Your task to perform on an android device: uninstall "Messenger Lite" Image 0: 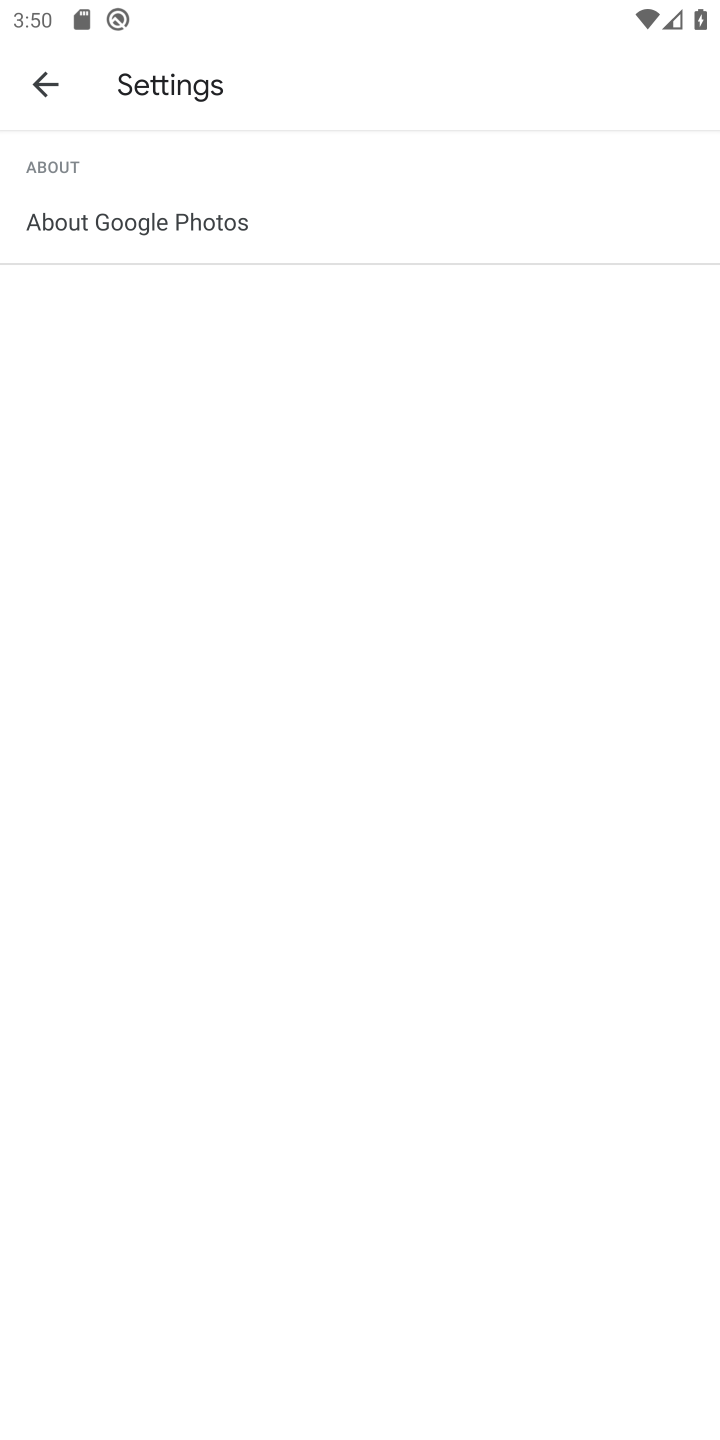
Step 0: press home button
Your task to perform on an android device: uninstall "Messenger Lite" Image 1: 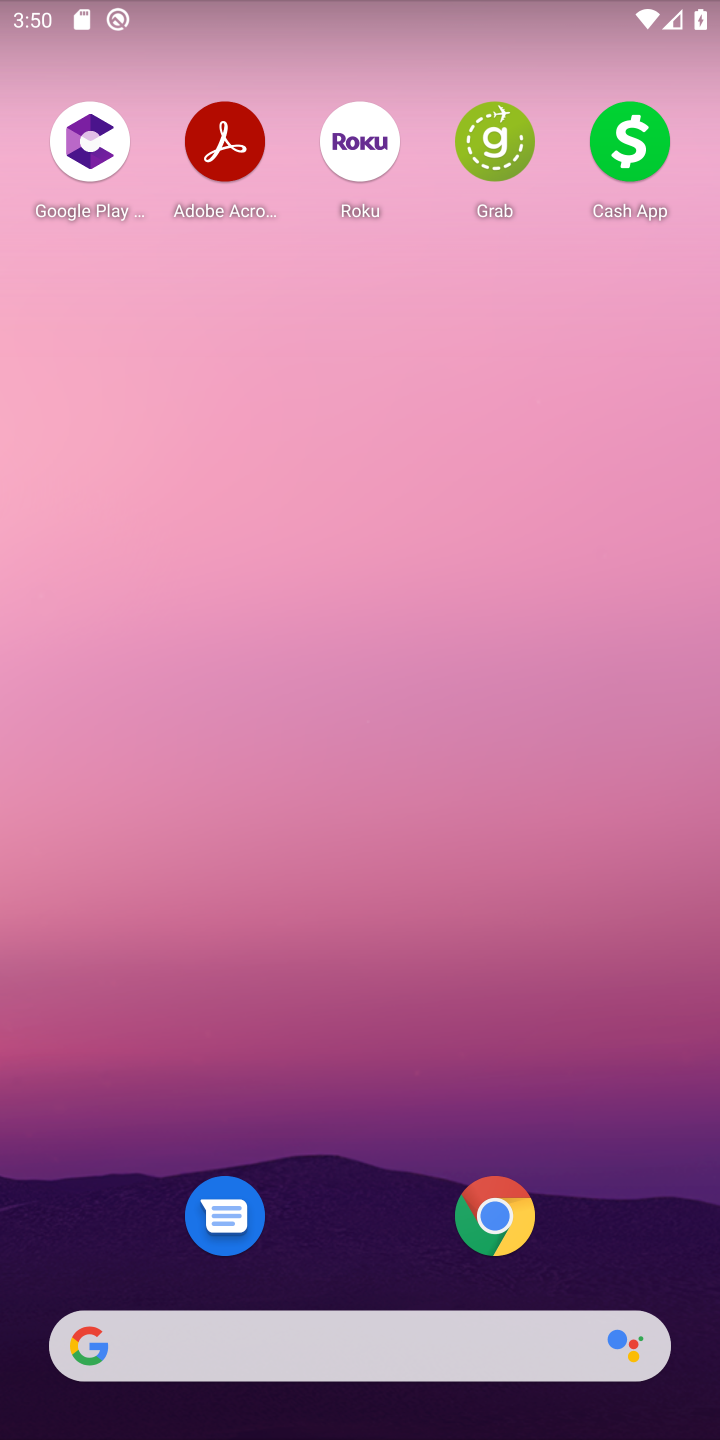
Step 1: drag from (329, 1084) to (425, 0)
Your task to perform on an android device: uninstall "Messenger Lite" Image 2: 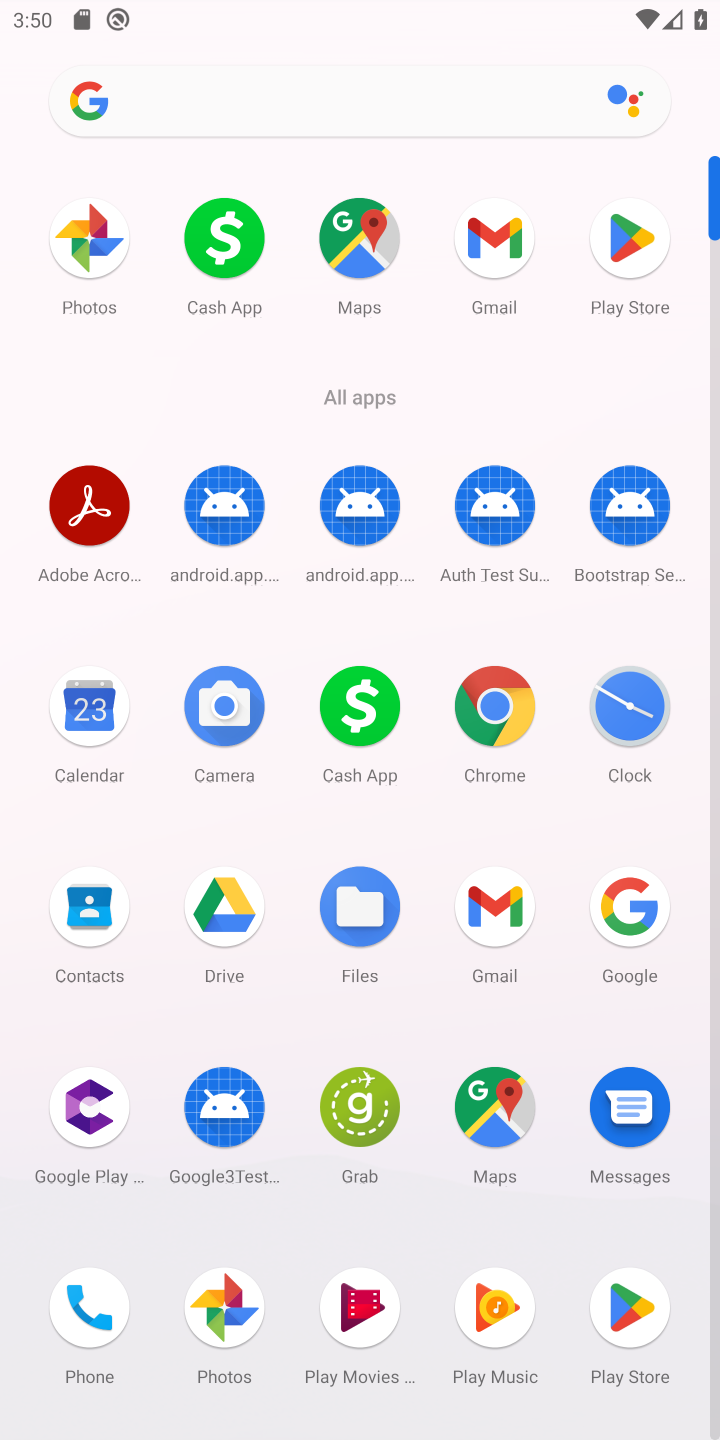
Step 2: click (633, 263)
Your task to perform on an android device: uninstall "Messenger Lite" Image 3: 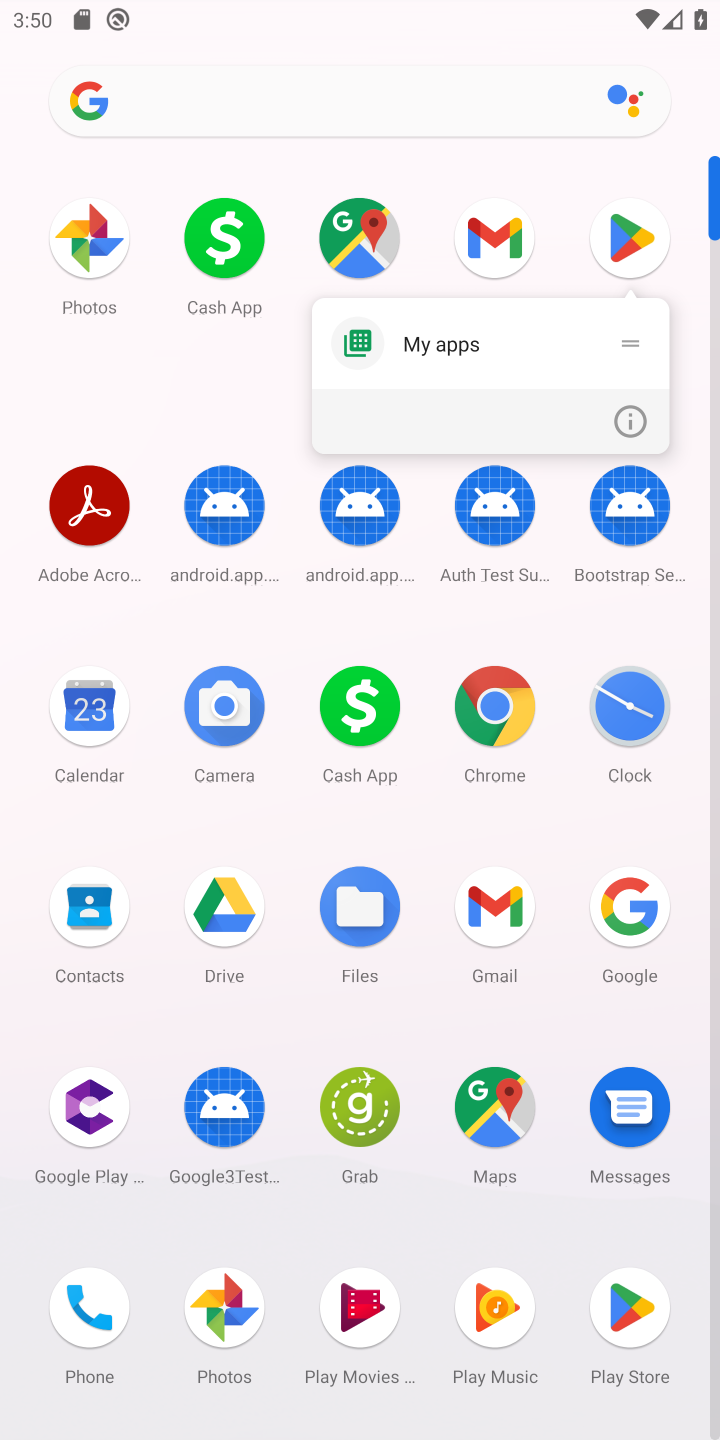
Step 3: click (643, 217)
Your task to perform on an android device: uninstall "Messenger Lite" Image 4: 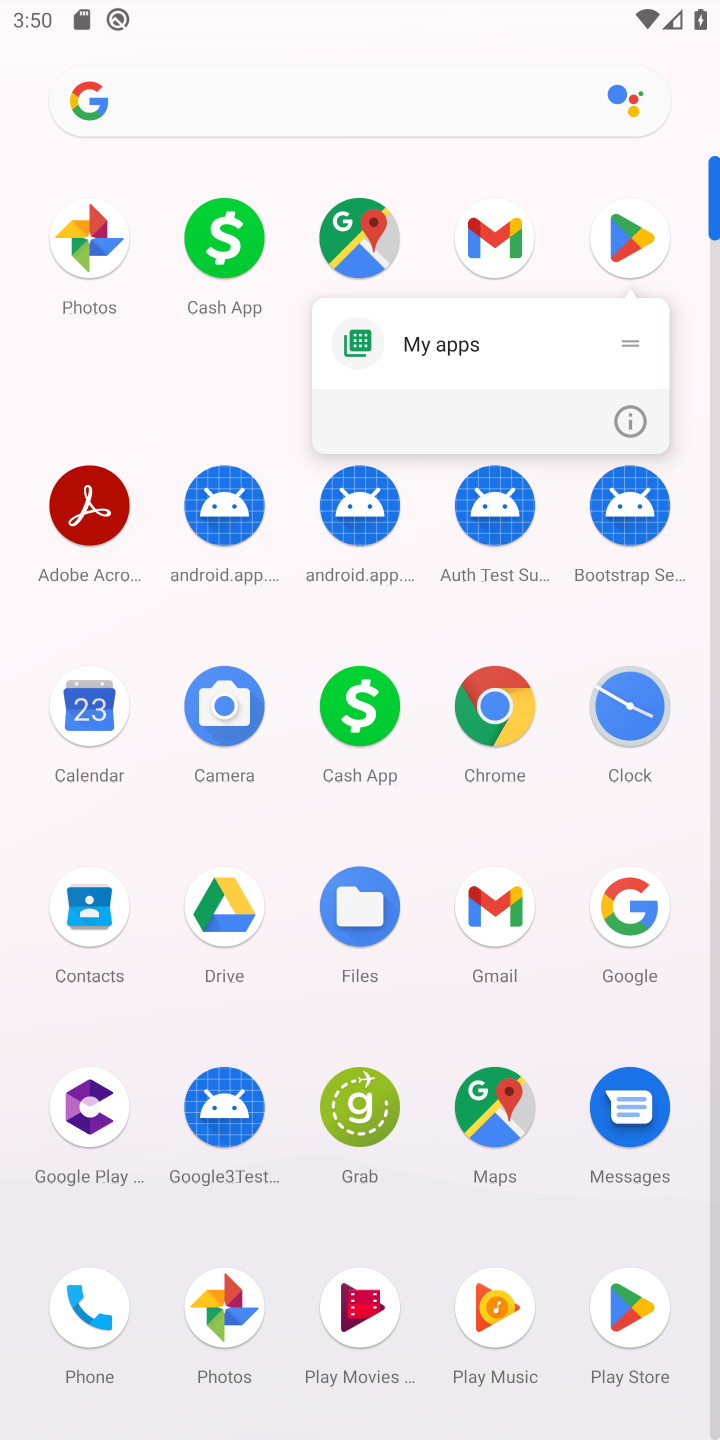
Step 4: click (621, 244)
Your task to perform on an android device: uninstall "Messenger Lite" Image 5: 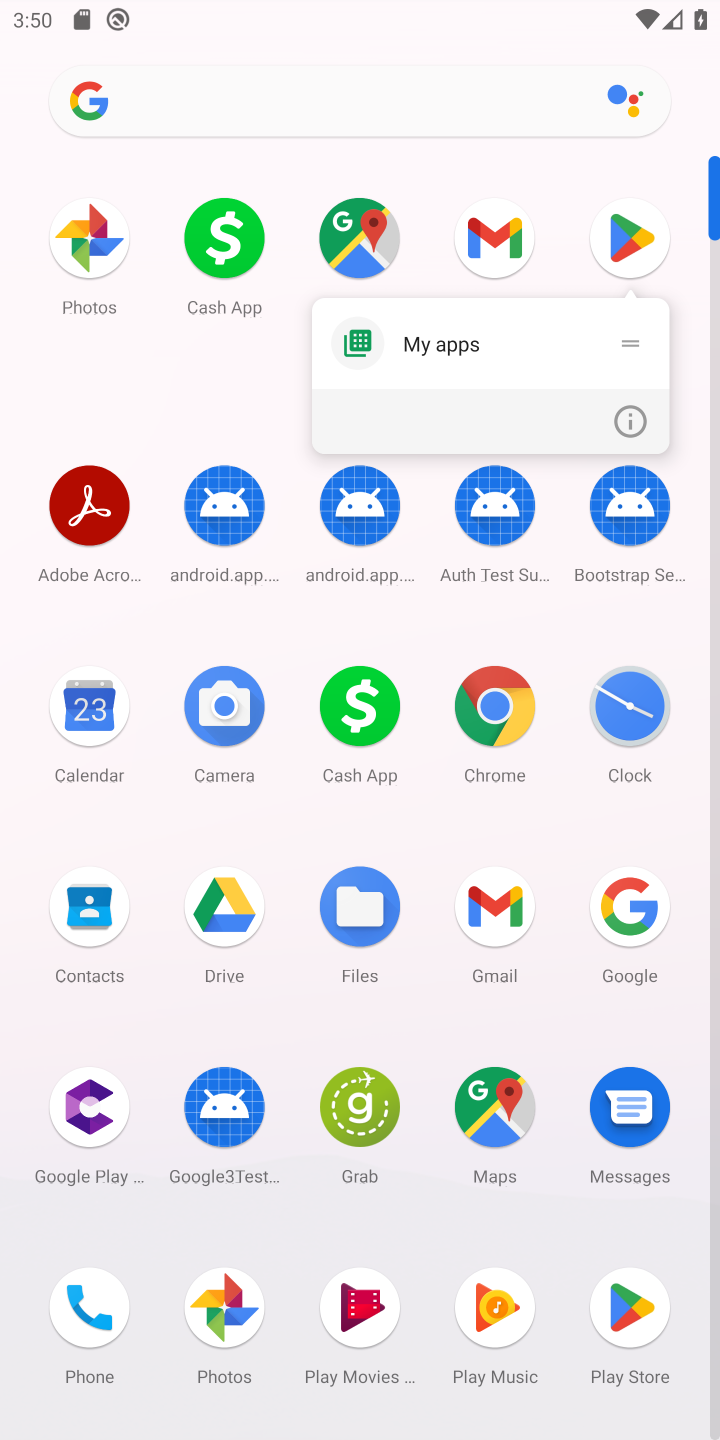
Step 5: click (632, 253)
Your task to perform on an android device: uninstall "Messenger Lite" Image 6: 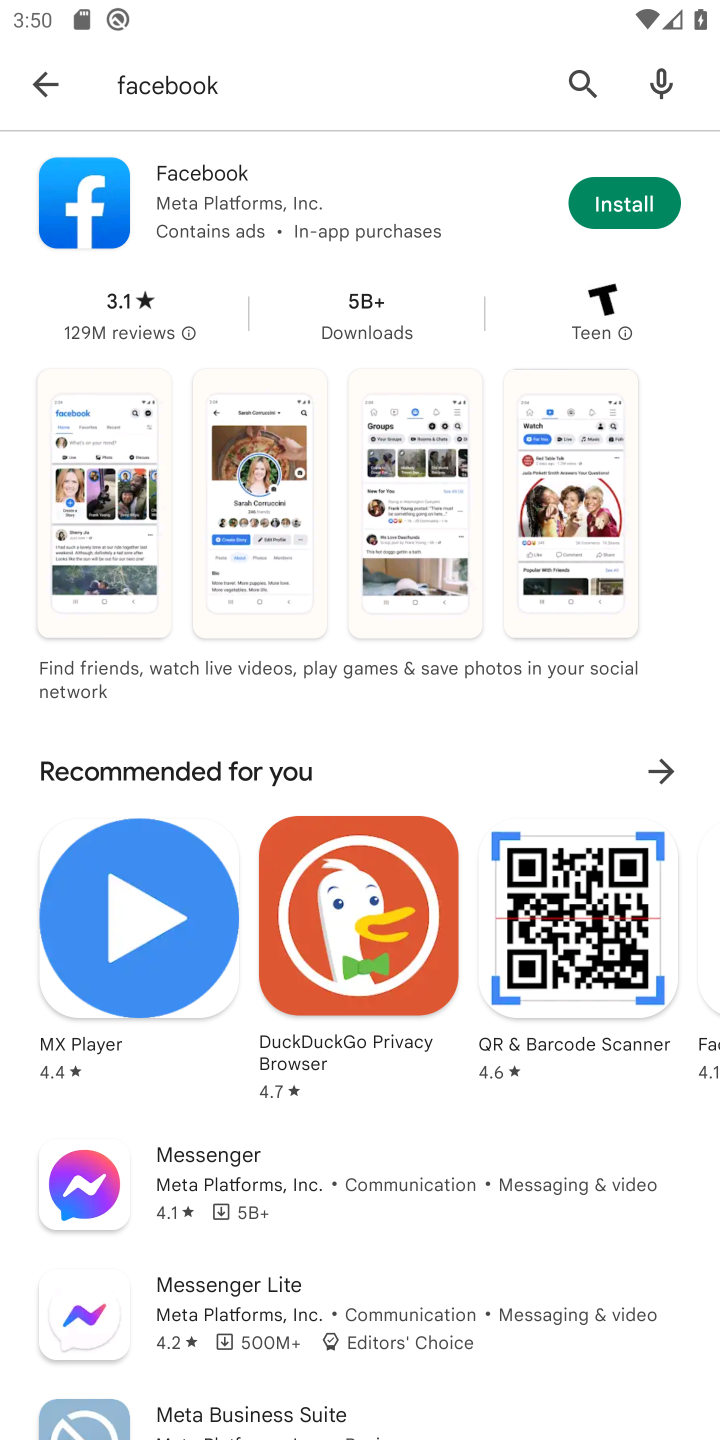
Step 6: click (247, 83)
Your task to perform on an android device: uninstall "Messenger Lite" Image 7: 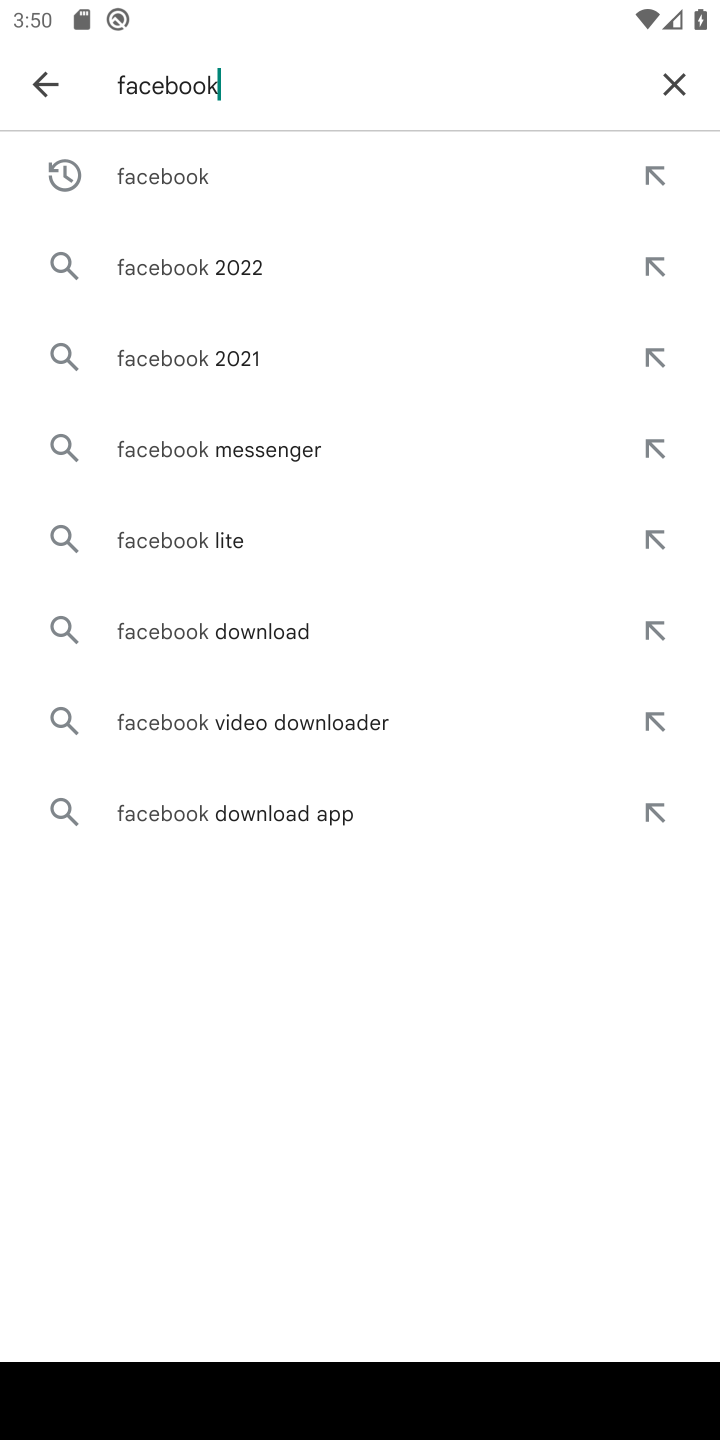
Step 7: click (671, 70)
Your task to perform on an android device: uninstall "Messenger Lite" Image 8: 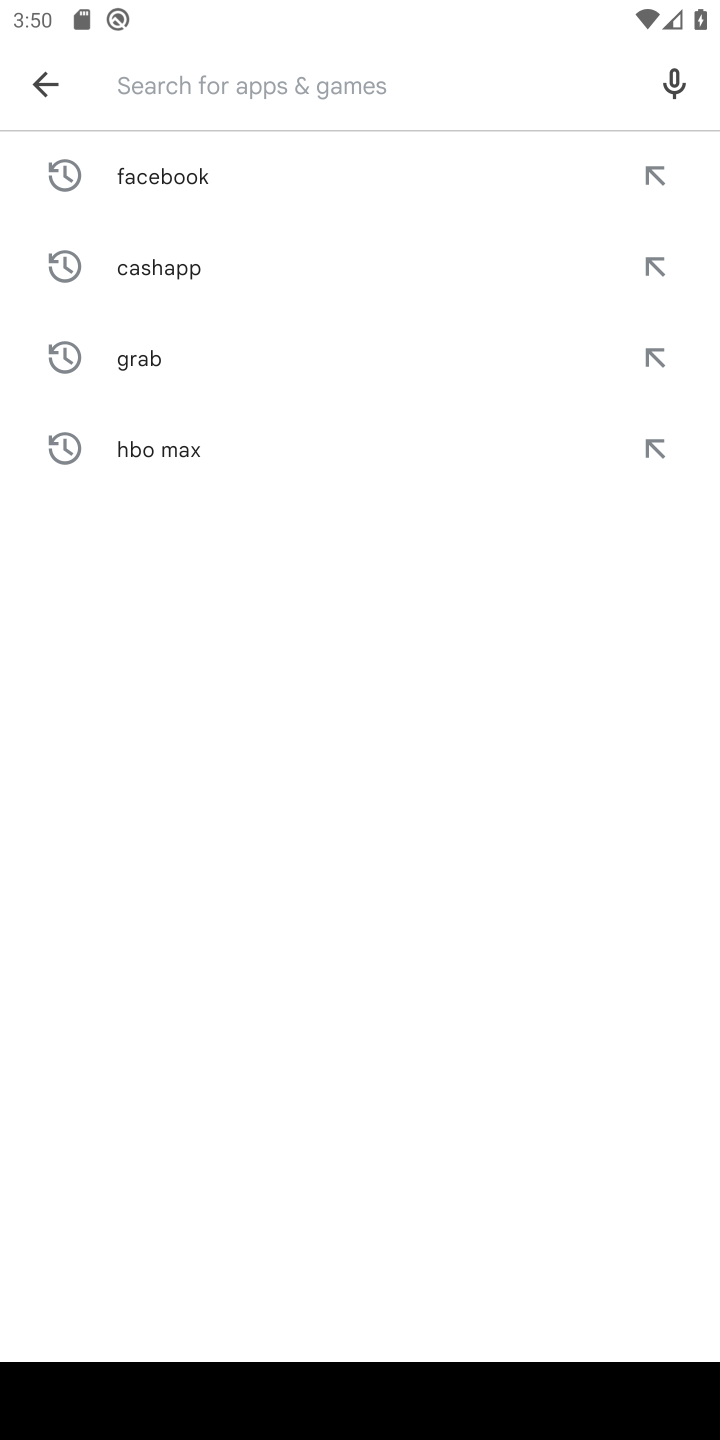
Step 8: type "messenger lite"
Your task to perform on an android device: uninstall "Messenger Lite" Image 9: 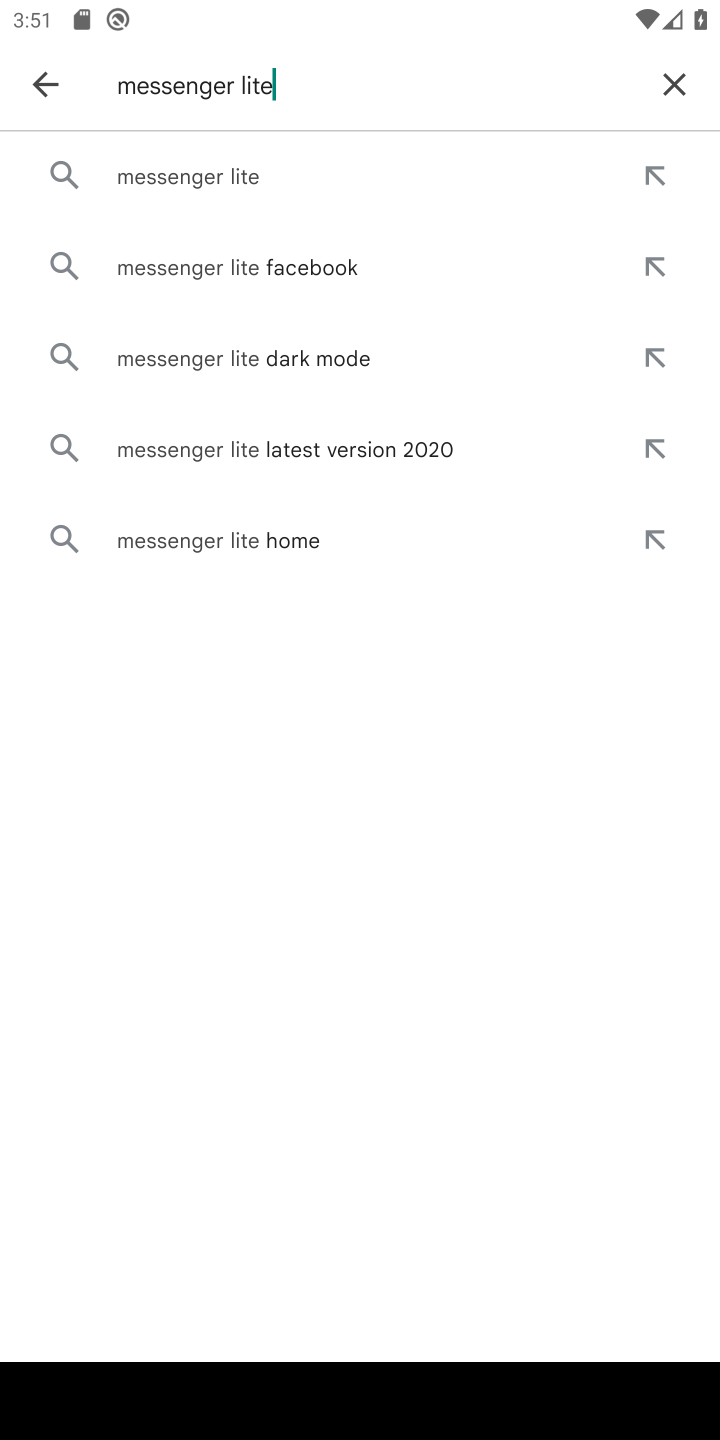
Step 9: click (256, 173)
Your task to perform on an android device: uninstall "Messenger Lite" Image 10: 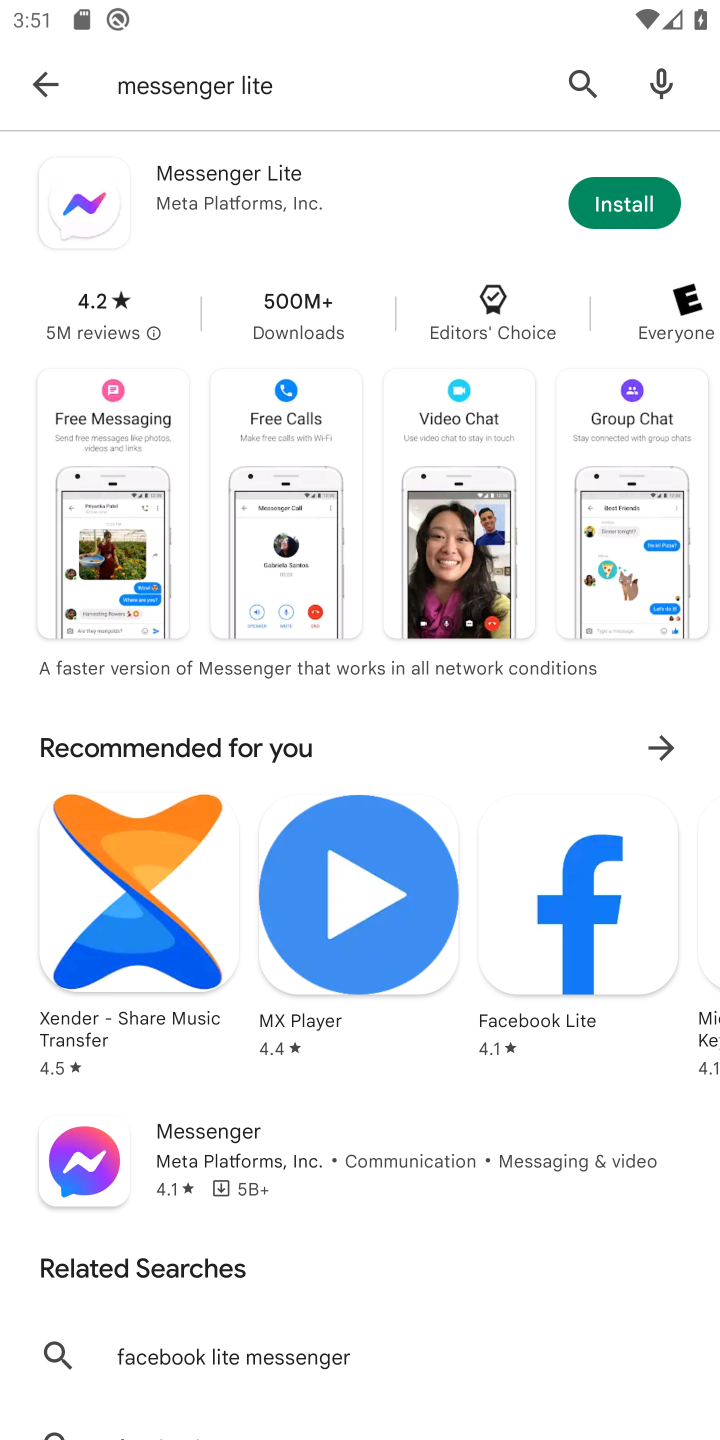
Step 10: task complete